Your task to perform on an android device: change text size in settings app Image 0: 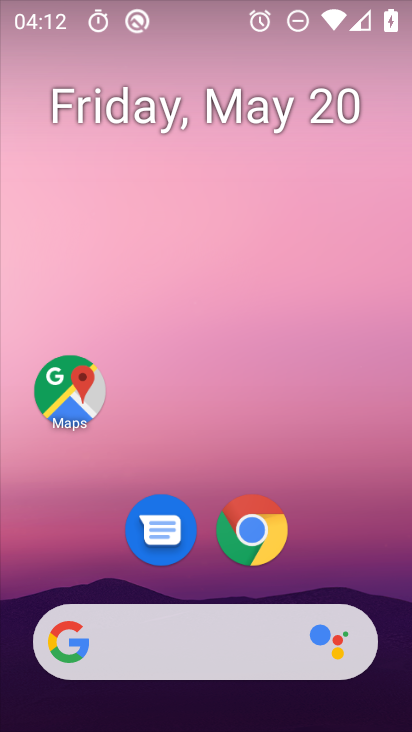
Step 0: drag from (388, 673) to (401, 175)
Your task to perform on an android device: change text size in settings app Image 1: 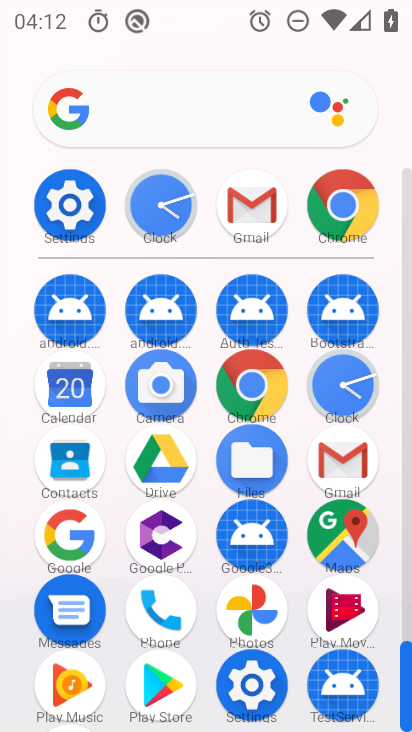
Step 1: click (236, 678)
Your task to perform on an android device: change text size in settings app Image 2: 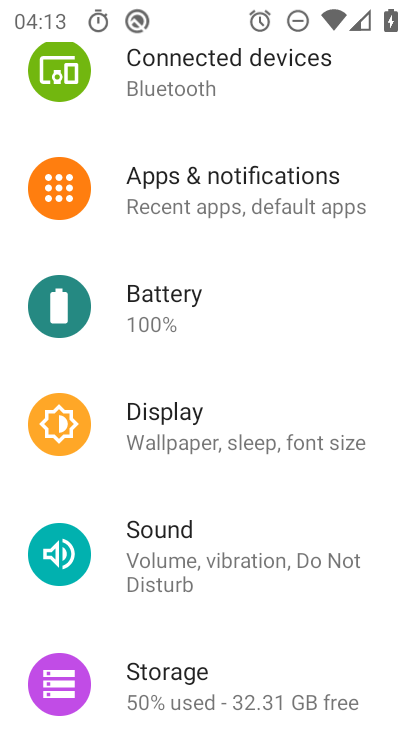
Step 2: click (177, 424)
Your task to perform on an android device: change text size in settings app Image 3: 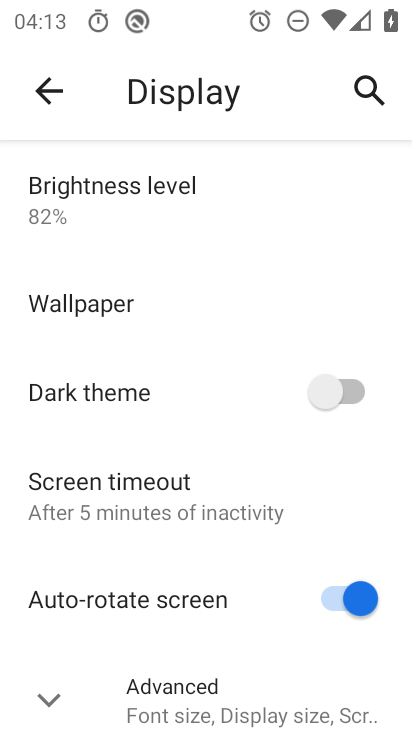
Step 3: drag from (252, 684) to (254, 406)
Your task to perform on an android device: change text size in settings app Image 4: 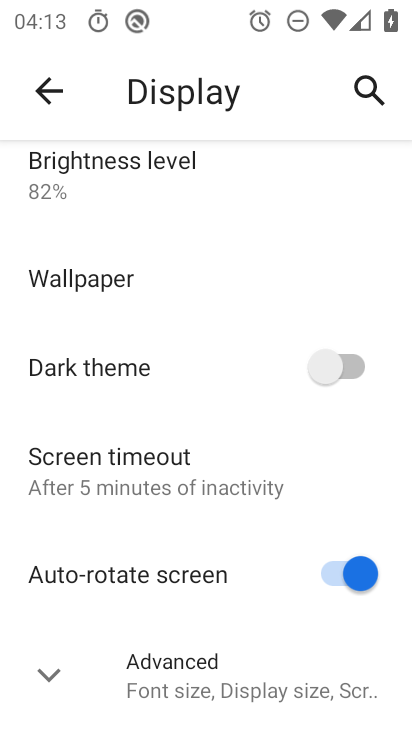
Step 4: click (43, 668)
Your task to perform on an android device: change text size in settings app Image 5: 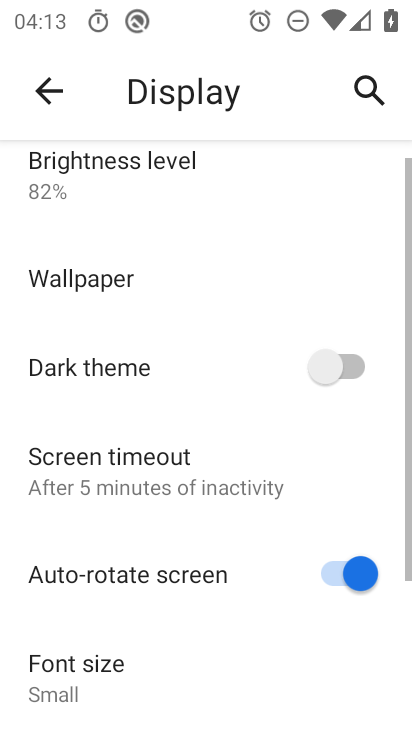
Step 5: drag from (203, 699) to (213, 314)
Your task to perform on an android device: change text size in settings app Image 6: 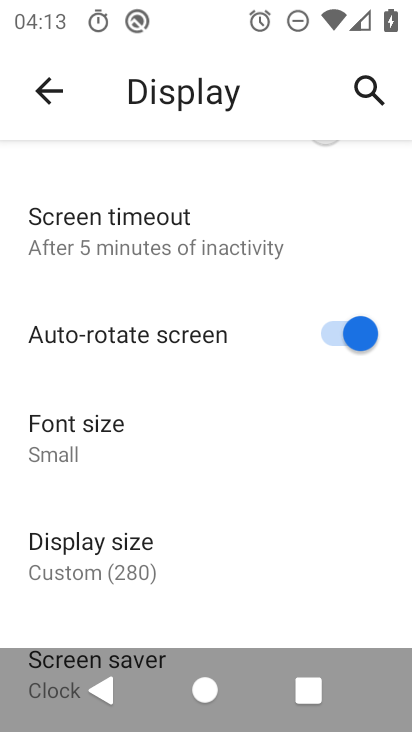
Step 6: click (68, 552)
Your task to perform on an android device: change text size in settings app Image 7: 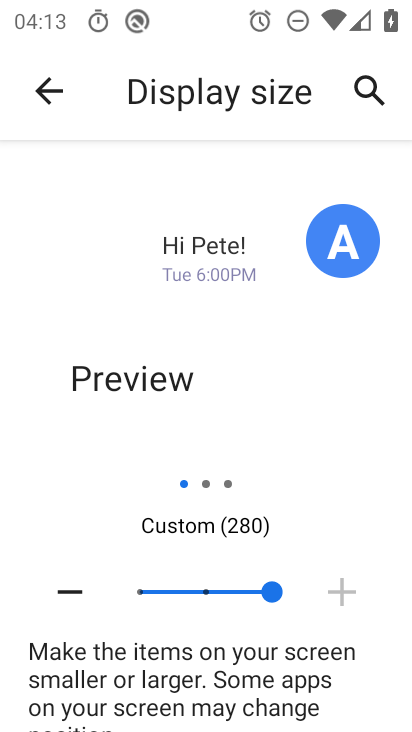
Step 7: click (40, 85)
Your task to perform on an android device: change text size in settings app Image 8: 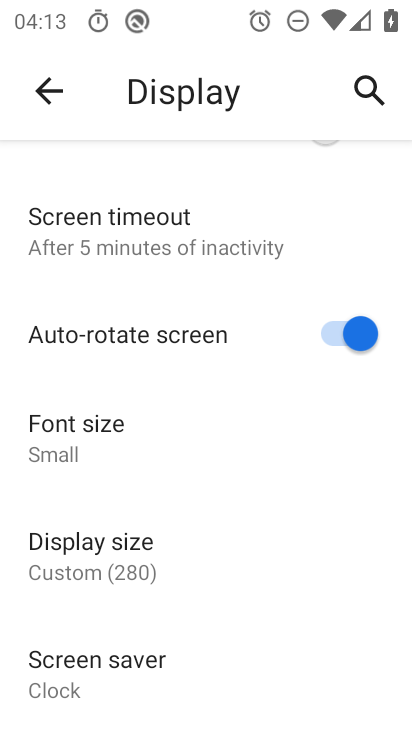
Step 8: click (59, 447)
Your task to perform on an android device: change text size in settings app Image 9: 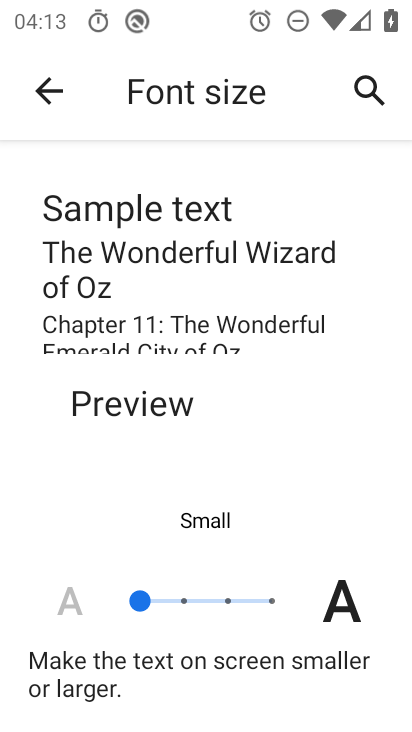
Step 9: click (161, 604)
Your task to perform on an android device: change text size in settings app Image 10: 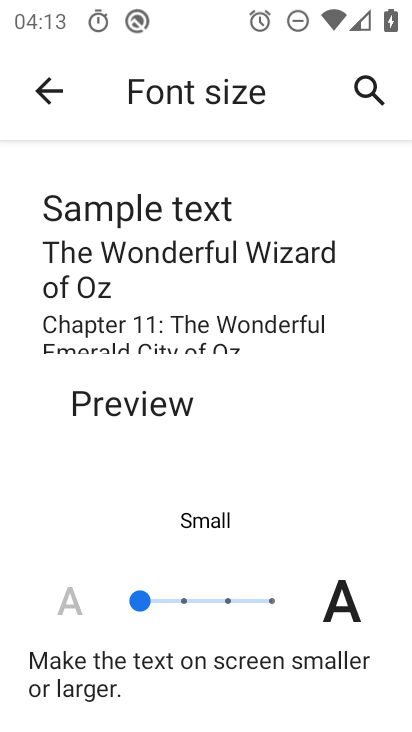
Step 10: click (163, 602)
Your task to perform on an android device: change text size in settings app Image 11: 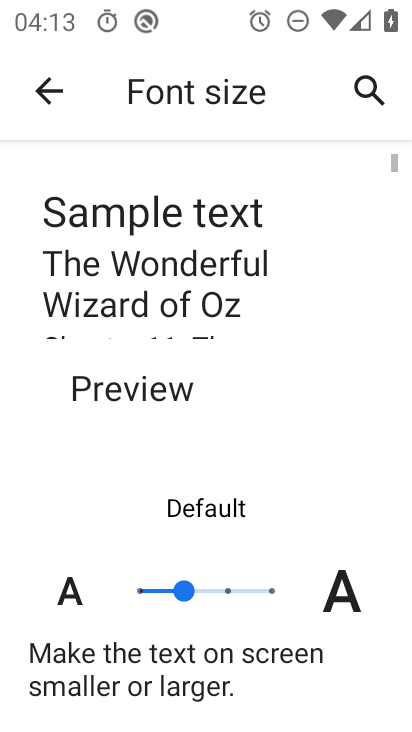
Step 11: task complete